Your task to perform on an android device: See recent photos Image 0: 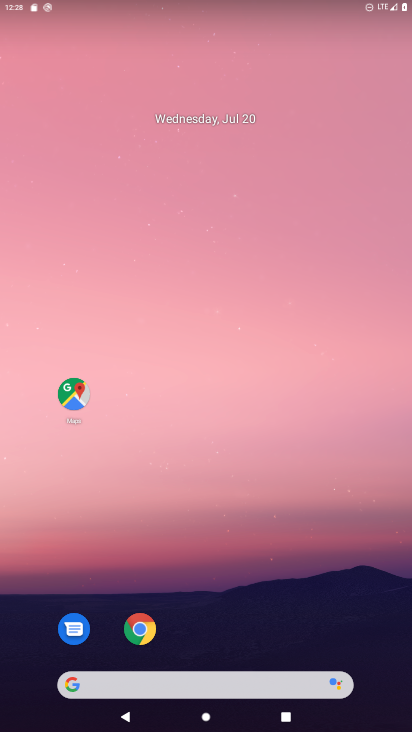
Step 0: drag from (201, 433) to (164, 181)
Your task to perform on an android device: See recent photos Image 1: 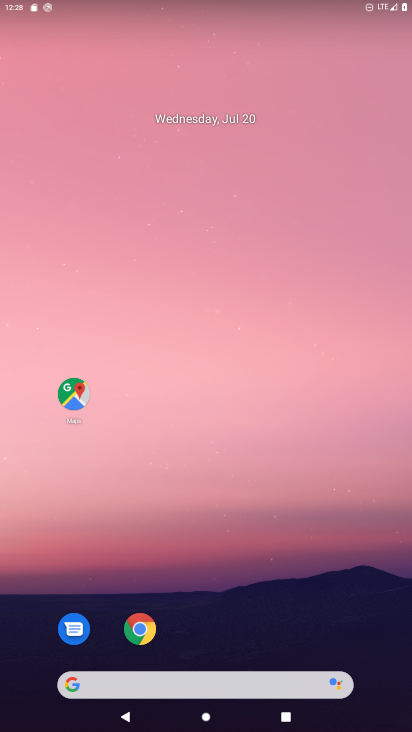
Step 1: drag from (186, 524) to (143, 124)
Your task to perform on an android device: See recent photos Image 2: 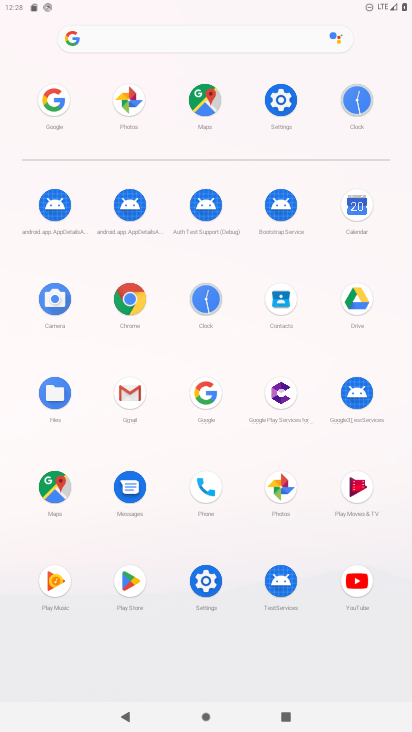
Step 2: click (283, 487)
Your task to perform on an android device: See recent photos Image 3: 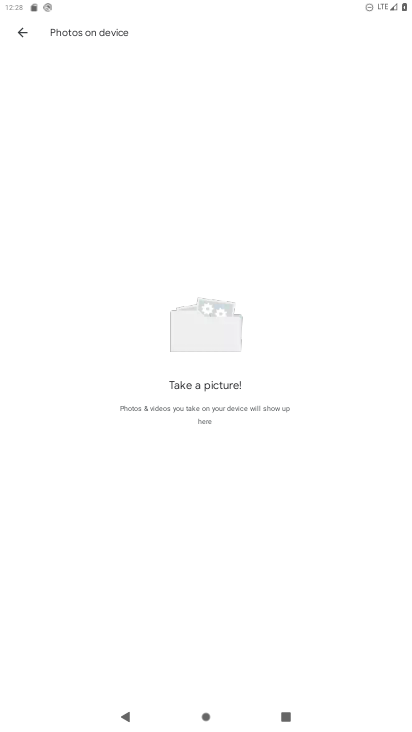
Step 3: click (24, 34)
Your task to perform on an android device: See recent photos Image 4: 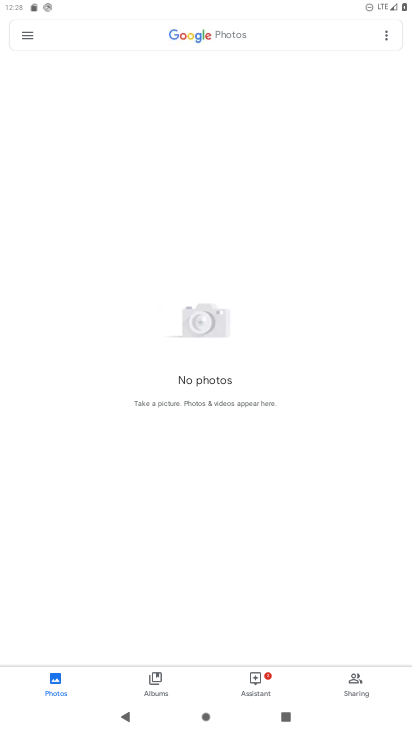
Step 4: task complete